Your task to perform on an android device: toggle show notifications on the lock screen Image 0: 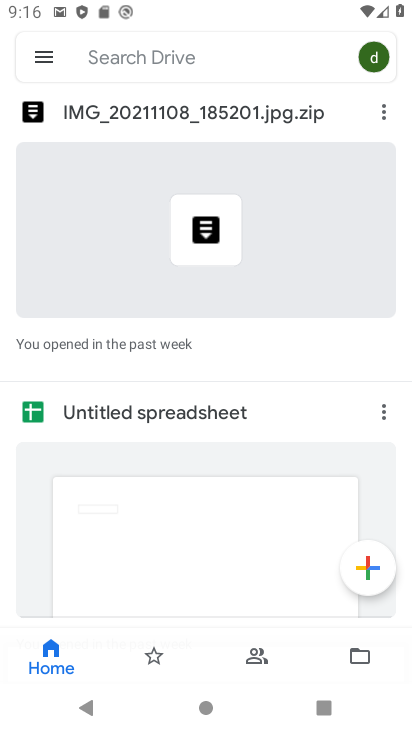
Step 0: press home button
Your task to perform on an android device: toggle show notifications on the lock screen Image 1: 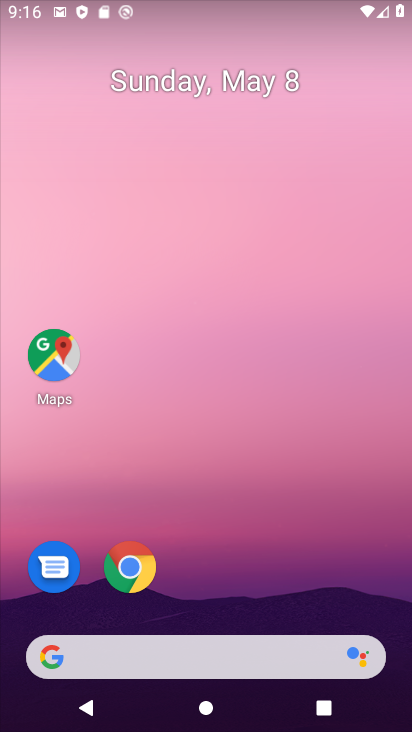
Step 1: drag from (220, 722) to (208, 182)
Your task to perform on an android device: toggle show notifications on the lock screen Image 2: 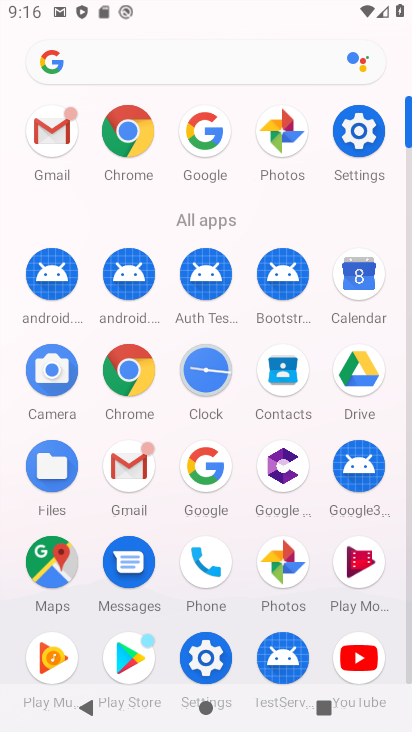
Step 2: click (347, 134)
Your task to perform on an android device: toggle show notifications on the lock screen Image 3: 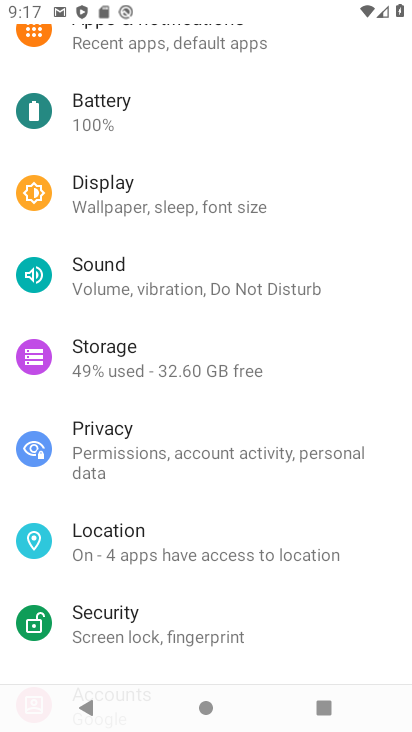
Step 3: drag from (214, 172) to (181, 492)
Your task to perform on an android device: toggle show notifications on the lock screen Image 4: 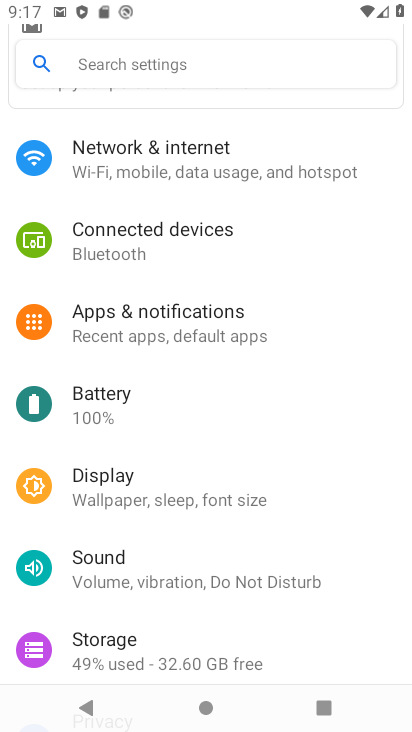
Step 4: click (163, 318)
Your task to perform on an android device: toggle show notifications on the lock screen Image 5: 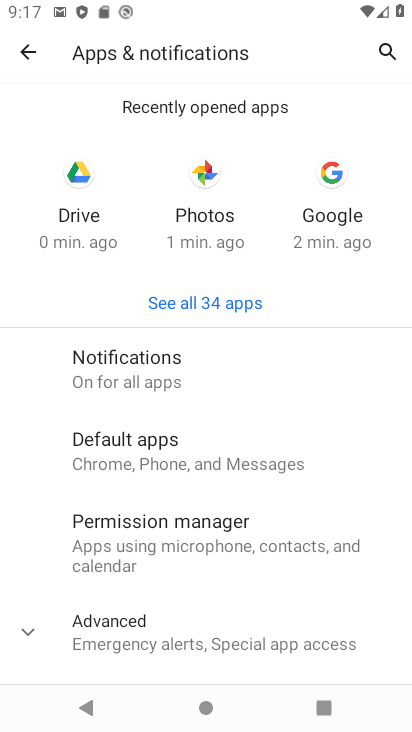
Step 5: click (140, 379)
Your task to perform on an android device: toggle show notifications on the lock screen Image 6: 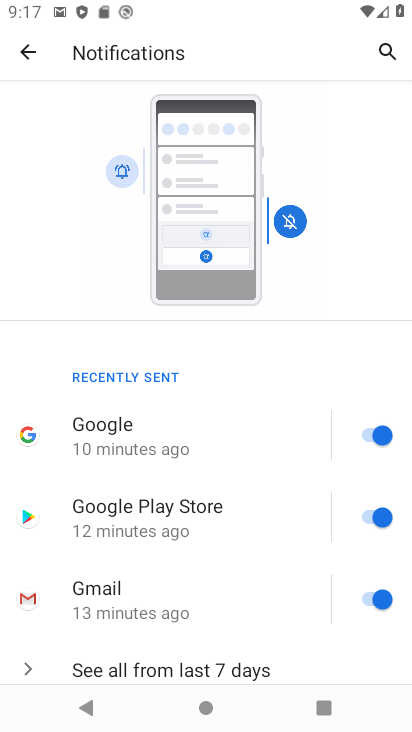
Step 6: drag from (220, 667) to (207, 275)
Your task to perform on an android device: toggle show notifications on the lock screen Image 7: 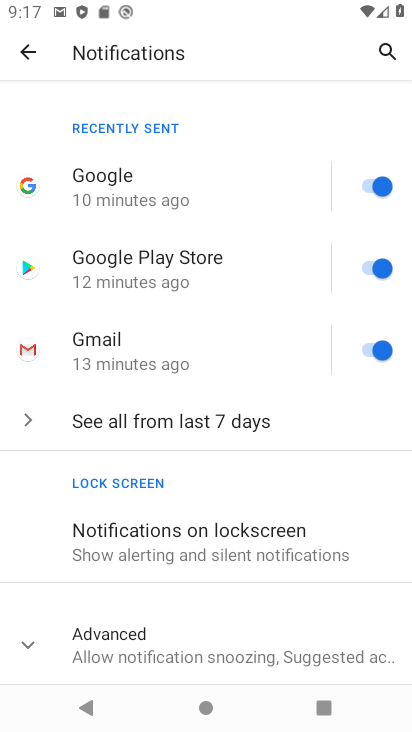
Step 7: click (252, 536)
Your task to perform on an android device: toggle show notifications on the lock screen Image 8: 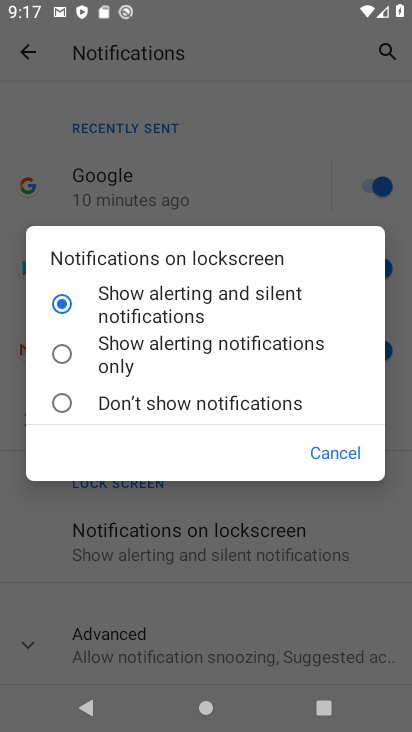
Step 8: click (60, 353)
Your task to perform on an android device: toggle show notifications on the lock screen Image 9: 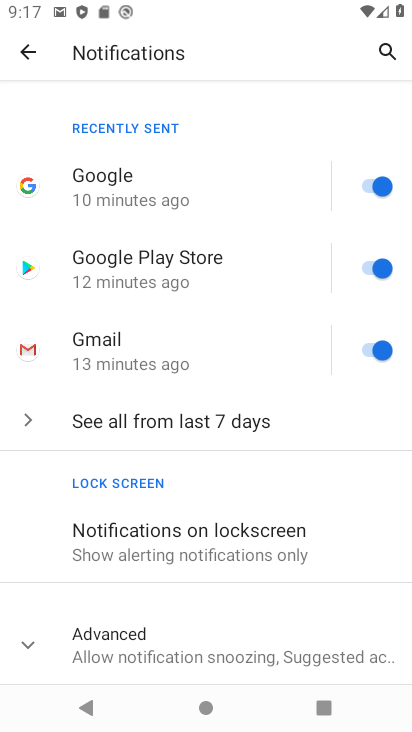
Step 9: task complete